Your task to perform on an android device: check battery use Image 0: 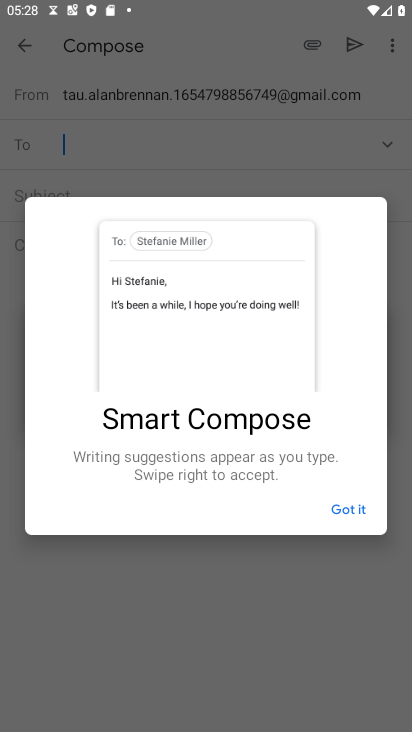
Step 0: press home button
Your task to perform on an android device: check battery use Image 1: 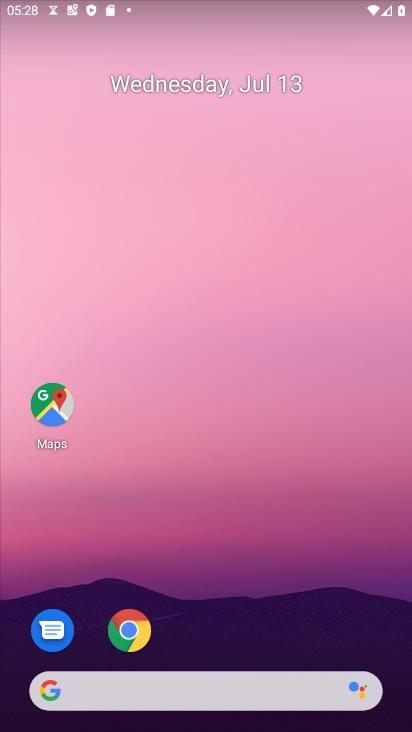
Step 1: drag from (300, 666) to (311, 178)
Your task to perform on an android device: check battery use Image 2: 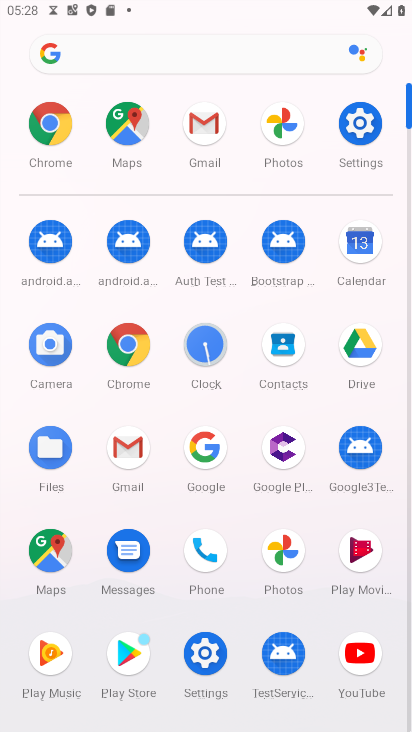
Step 2: click (341, 126)
Your task to perform on an android device: check battery use Image 3: 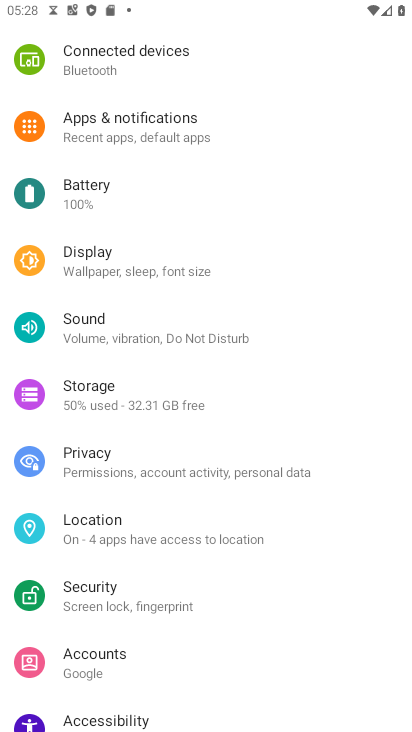
Step 3: click (128, 197)
Your task to perform on an android device: check battery use Image 4: 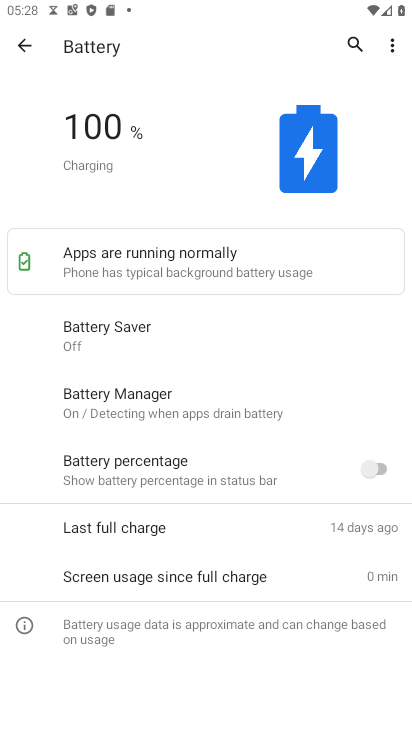
Step 4: task complete